Your task to perform on an android device: Open Google Chrome and click the shortcut for Amazon.com Image 0: 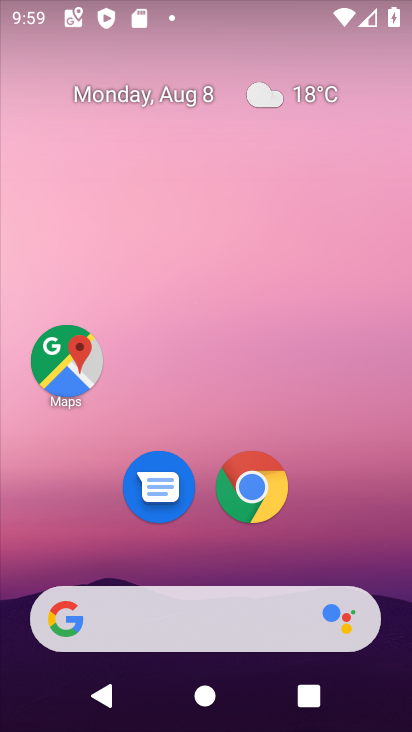
Step 0: click (253, 489)
Your task to perform on an android device: Open Google Chrome and click the shortcut for Amazon.com Image 1: 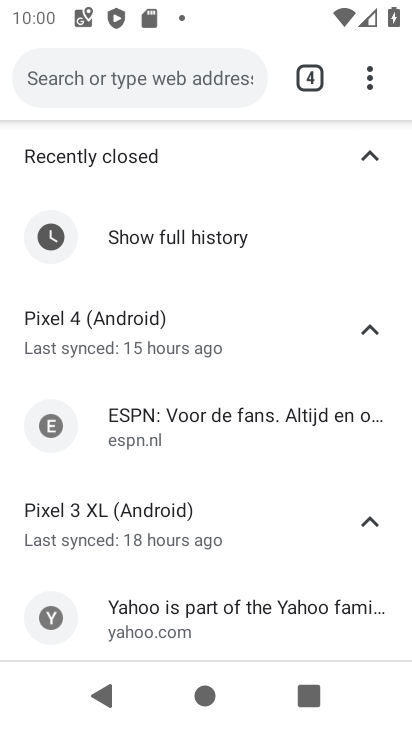
Step 1: drag from (371, 84) to (58, 159)
Your task to perform on an android device: Open Google Chrome and click the shortcut for Amazon.com Image 2: 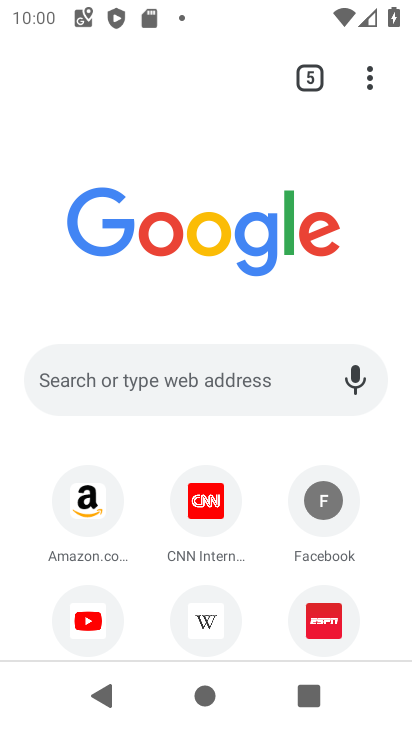
Step 2: click (91, 501)
Your task to perform on an android device: Open Google Chrome and click the shortcut for Amazon.com Image 3: 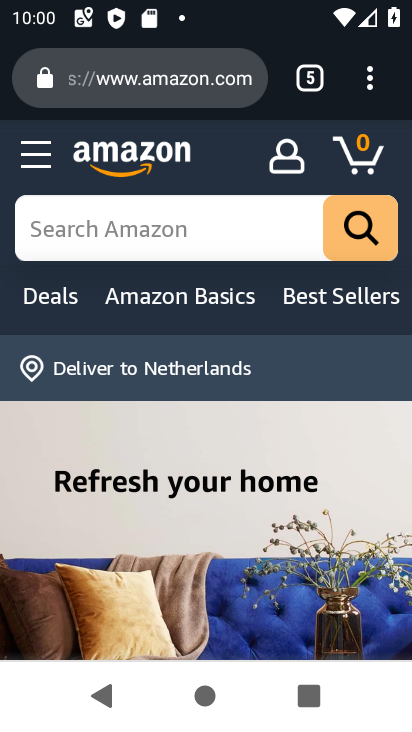
Step 3: task complete